Your task to perform on an android device: Go to network settings Image 0: 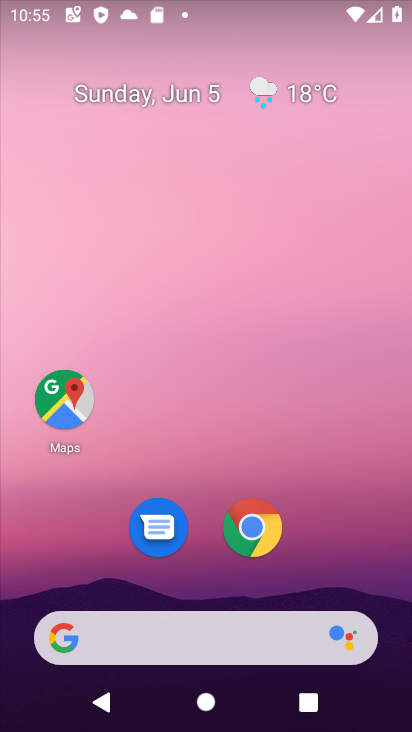
Step 0: drag from (249, 200) to (249, 0)
Your task to perform on an android device: Go to network settings Image 1: 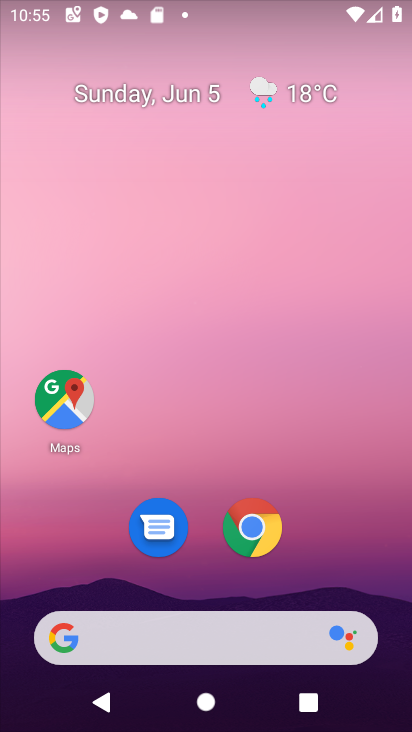
Step 1: drag from (343, 545) to (159, 3)
Your task to perform on an android device: Go to network settings Image 2: 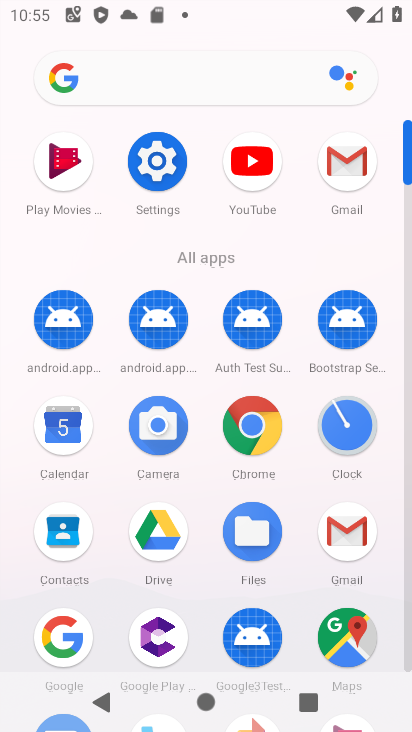
Step 2: click (159, 153)
Your task to perform on an android device: Go to network settings Image 3: 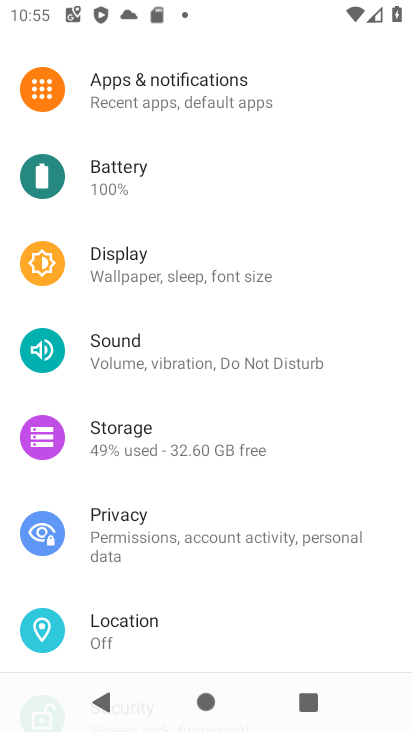
Step 3: drag from (253, 560) to (225, 131)
Your task to perform on an android device: Go to network settings Image 4: 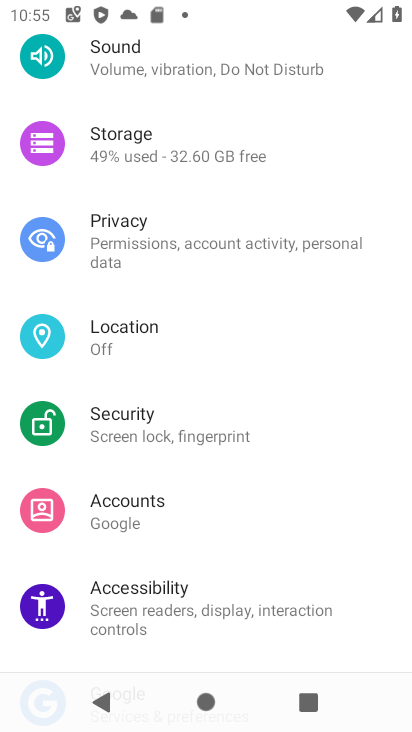
Step 4: drag from (232, 96) to (247, 723)
Your task to perform on an android device: Go to network settings Image 5: 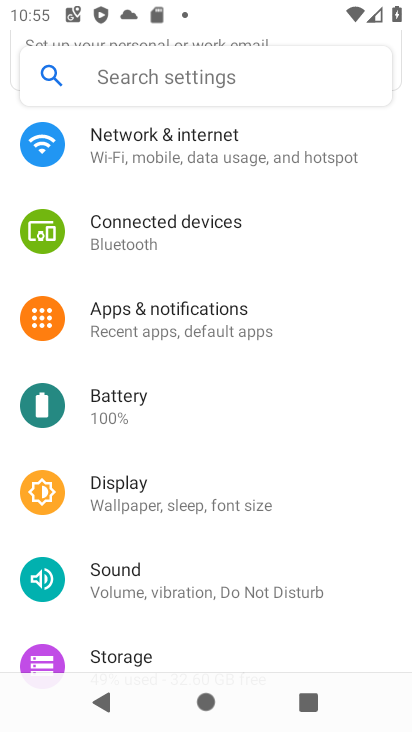
Step 5: click (245, 135)
Your task to perform on an android device: Go to network settings Image 6: 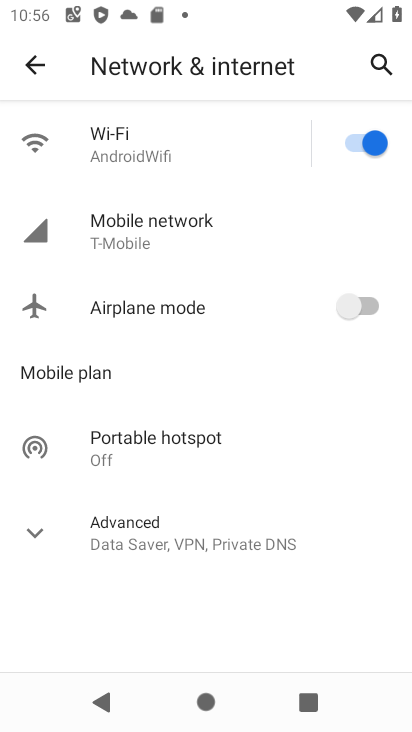
Step 6: task complete